Your task to perform on an android device: Open Wikipedia Image 0: 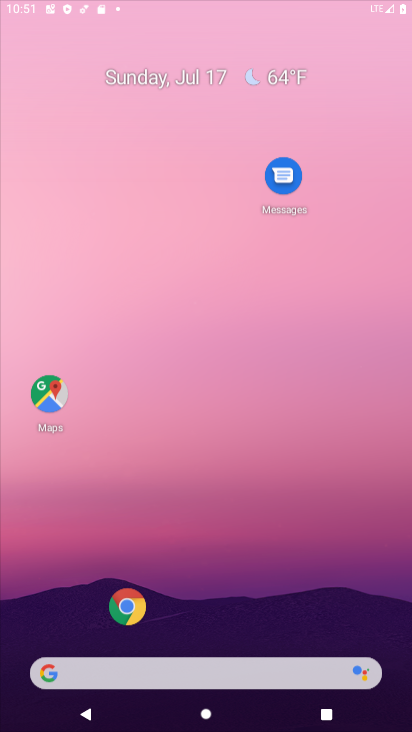
Step 0: click (142, 177)
Your task to perform on an android device: Open Wikipedia Image 1: 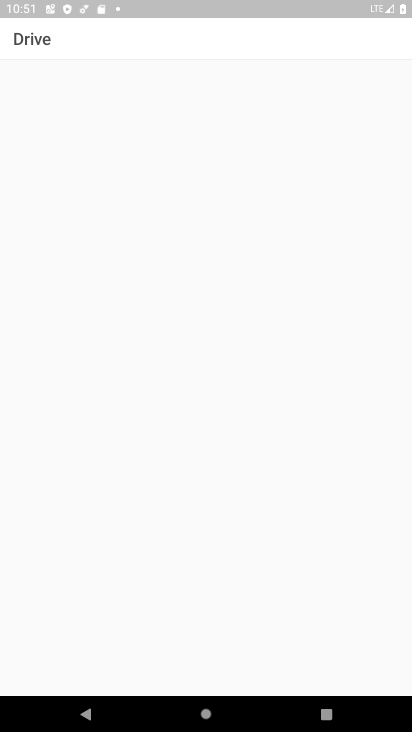
Step 1: press home button
Your task to perform on an android device: Open Wikipedia Image 2: 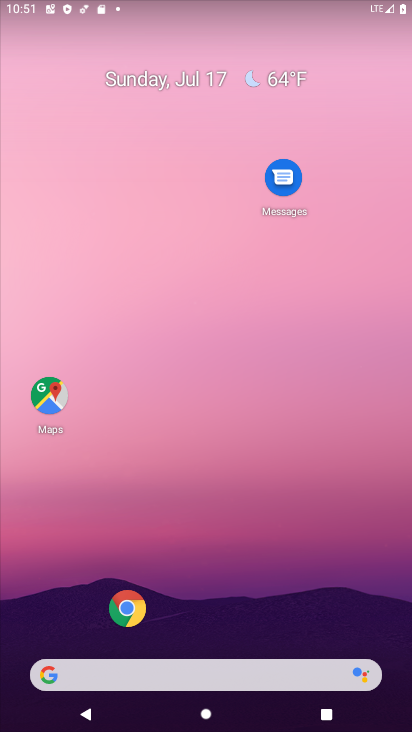
Step 2: click (138, 683)
Your task to perform on an android device: Open Wikipedia Image 3: 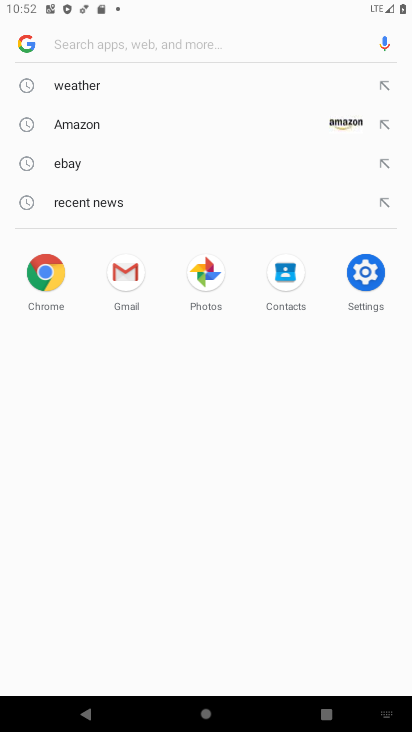
Step 3: type "Wikipedia"
Your task to perform on an android device: Open Wikipedia Image 4: 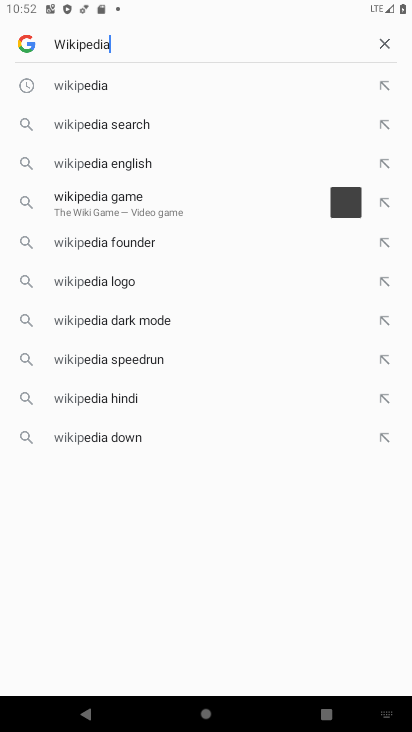
Step 4: type ""
Your task to perform on an android device: Open Wikipedia Image 5: 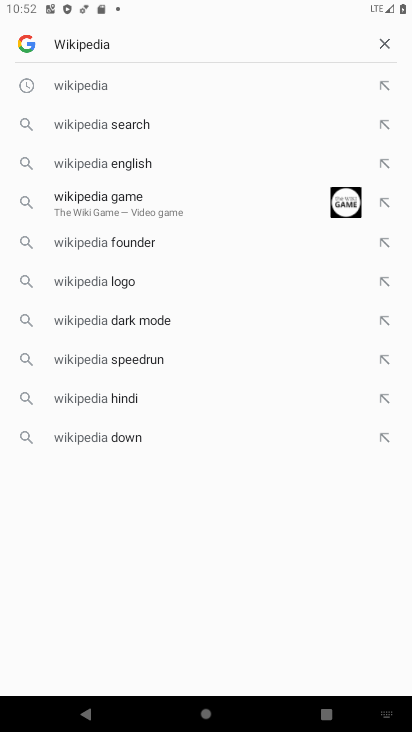
Step 5: click (106, 93)
Your task to perform on an android device: Open Wikipedia Image 6: 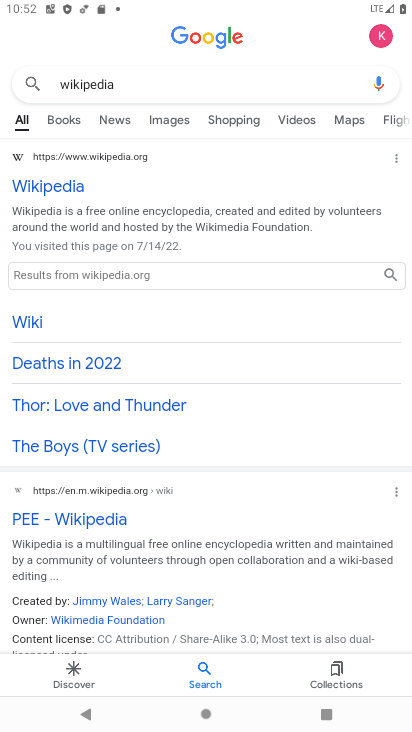
Step 6: task complete